Your task to perform on an android device: Open Amazon Image 0: 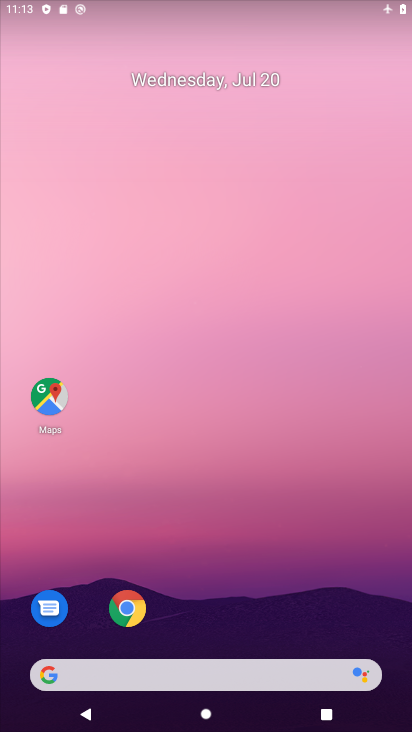
Step 0: drag from (346, 621) to (169, 29)
Your task to perform on an android device: Open Amazon Image 1: 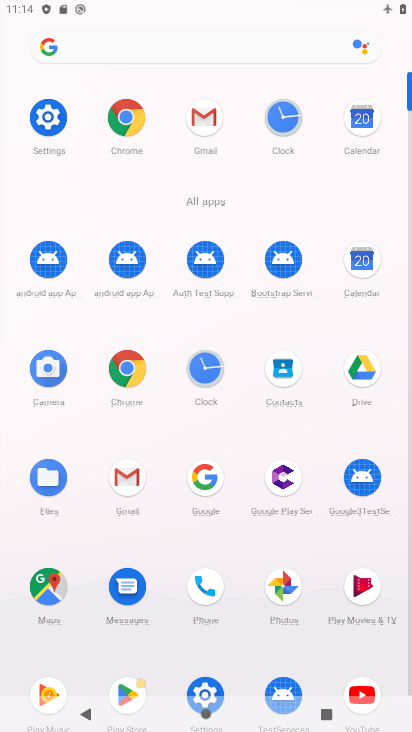
Step 1: click (199, 489)
Your task to perform on an android device: Open Amazon Image 2: 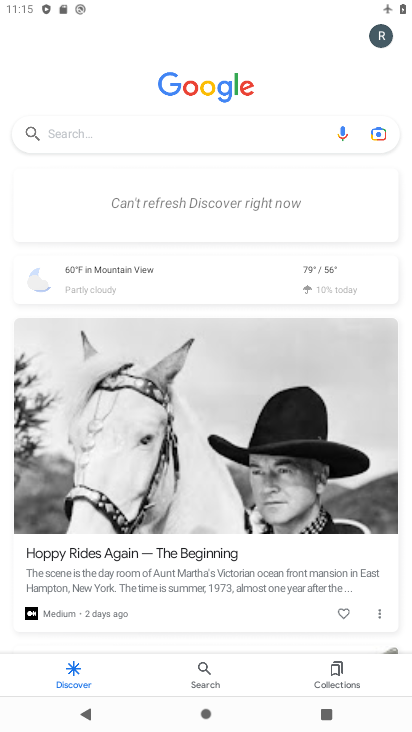
Step 2: click (118, 135)
Your task to perform on an android device: Open Amazon Image 3: 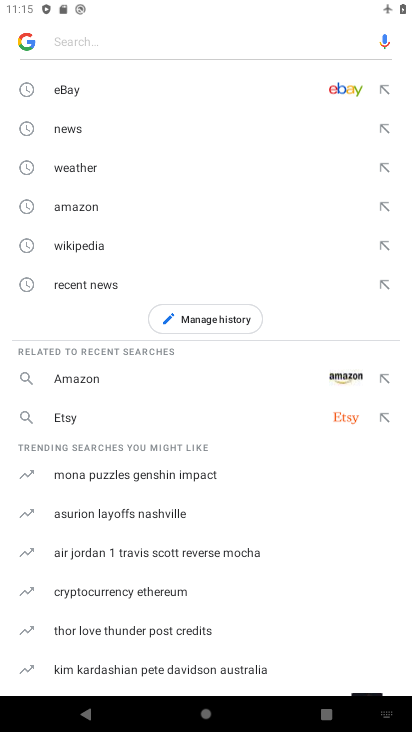
Step 3: click (98, 207)
Your task to perform on an android device: Open Amazon Image 4: 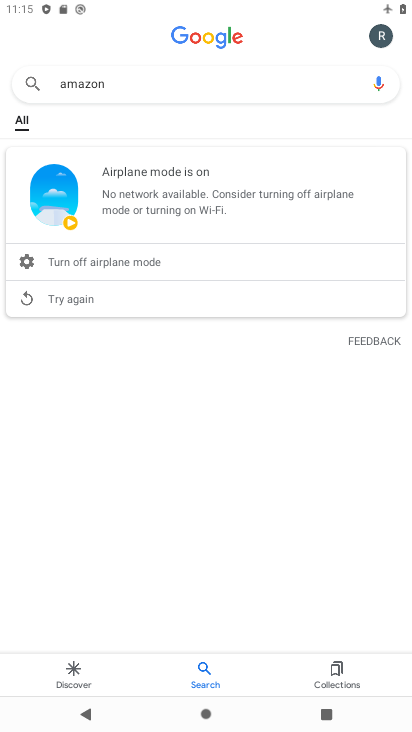
Step 4: task complete